Your task to perform on an android device: set an alarm Image 0: 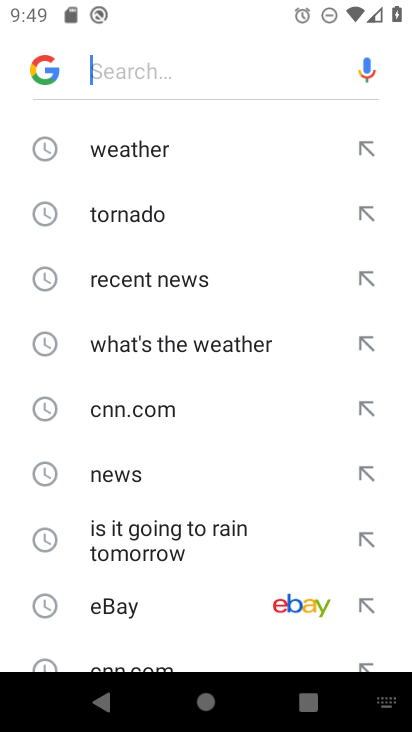
Step 0: press home button
Your task to perform on an android device: set an alarm Image 1: 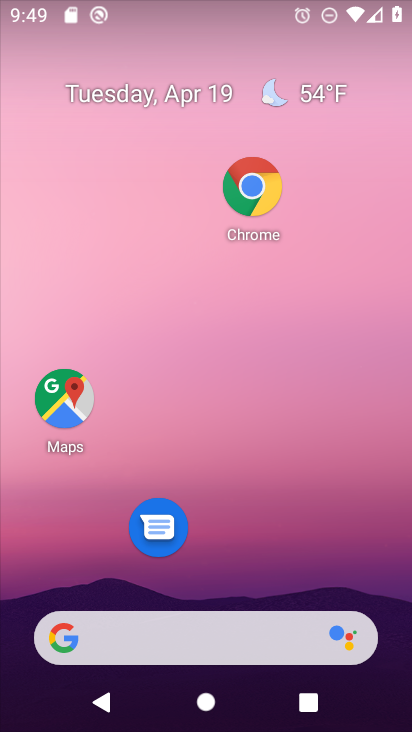
Step 1: drag from (295, 581) to (339, 227)
Your task to perform on an android device: set an alarm Image 2: 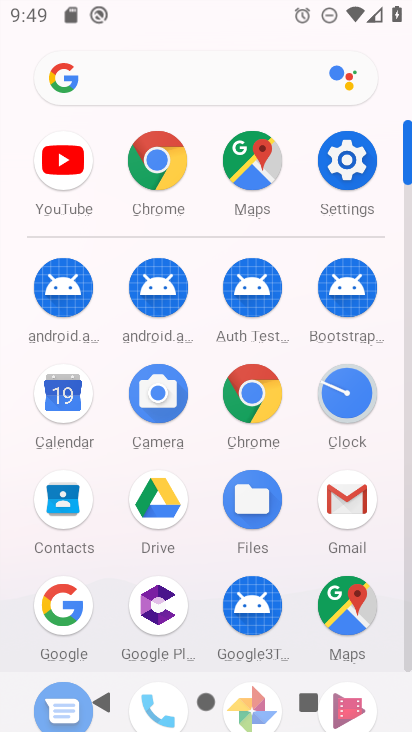
Step 2: click (351, 391)
Your task to perform on an android device: set an alarm Image 3: 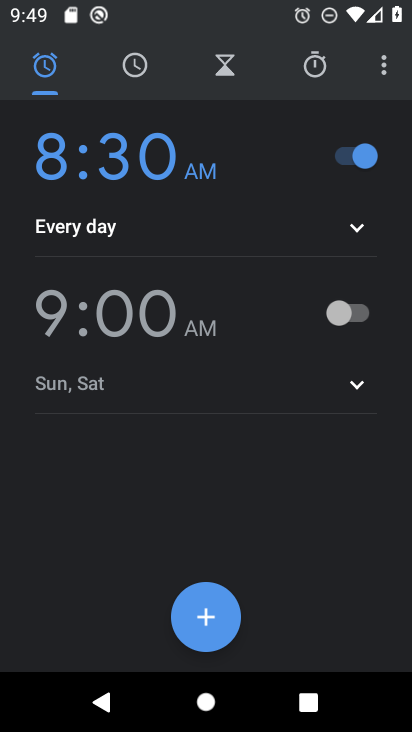
Step 3: click (267, 320)
Your task to perform on an android device: set an alarm Image 4: 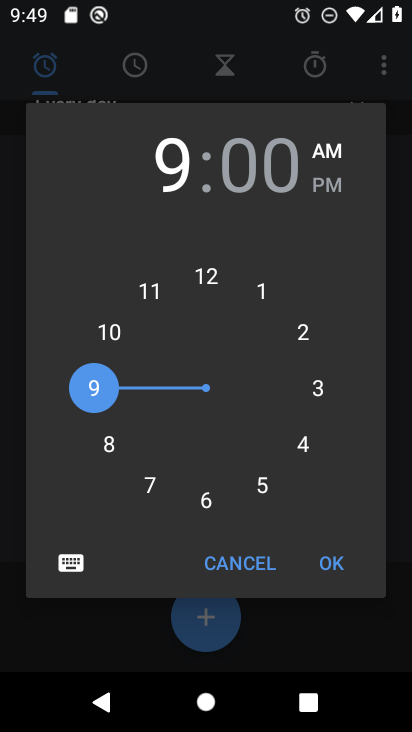
Step 4: click (340, 556)
Your task to perform on an android device: set an alarm Image 5: 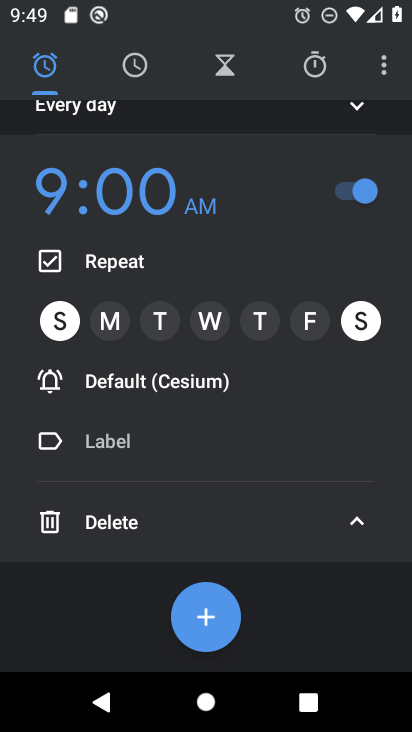
Step 5: click (101, 318)
Your task to perform on an android device: set an alarm Image 6: 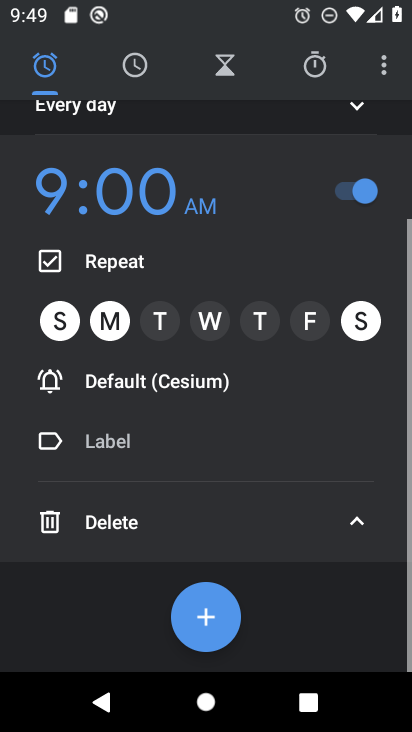
Step 6: click (160, 312)
Your task to perform on an android device: set an alarm Image 7: 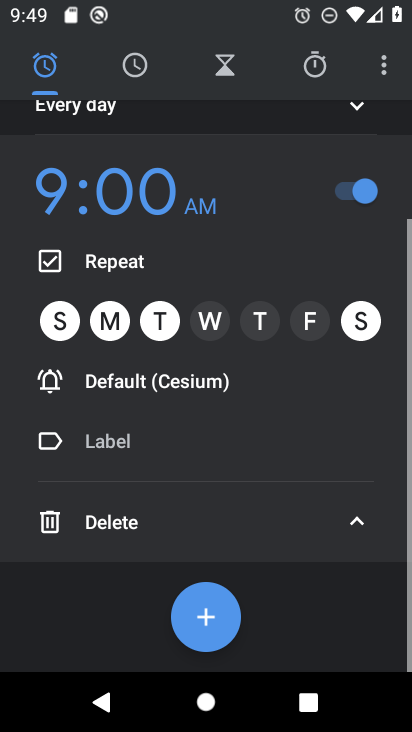
Step 7: click (202, 317)
Your task to perform on an android device: set an alarm Image 8: 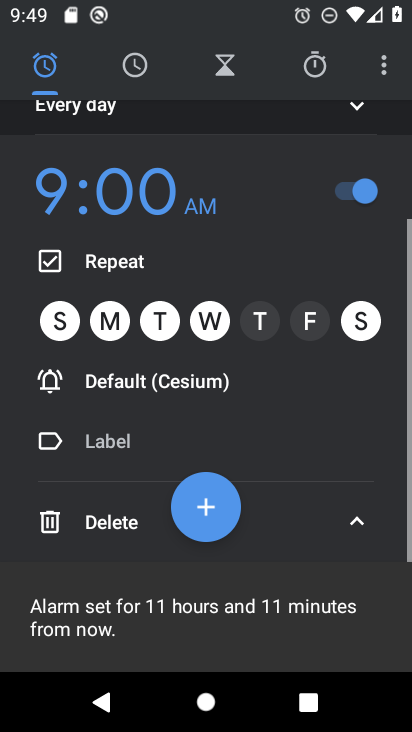
Step 8: click (261, 317)
Your task to perform on an android device: set an alarm Image 9: 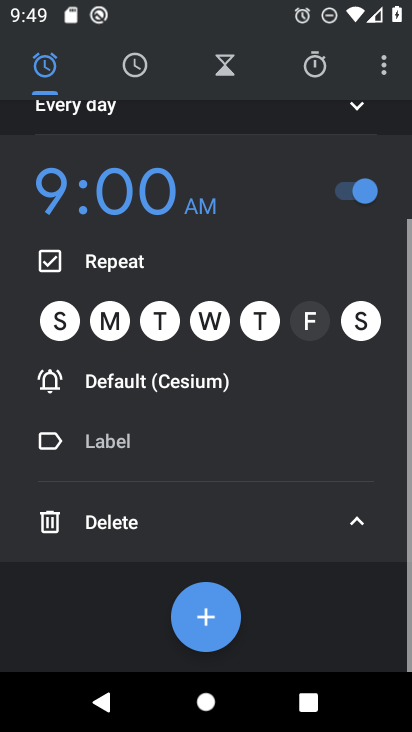
Step 9: click (291, 319)
Your task to perform on an android device: set an alarm Image 10: 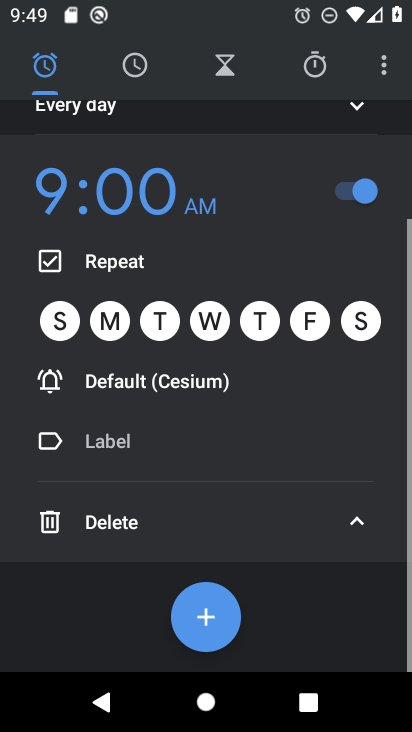
Step 10: click (313, 320)
Your task to perform on an android device: set an alarm Image 11: 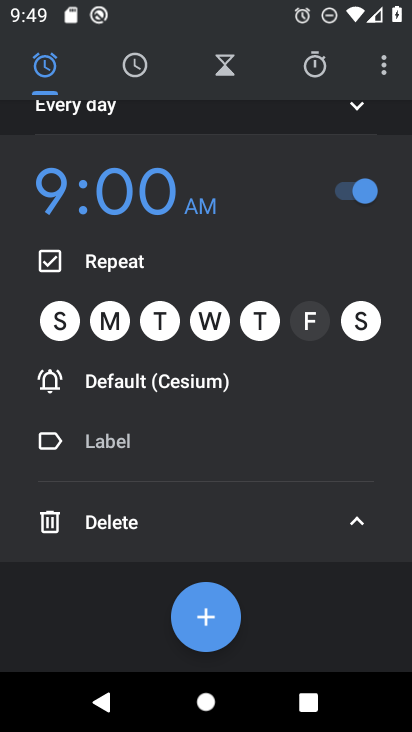
Step 11: click (319, 328)
Your task to perform on an android device: set an alarm Image 12: 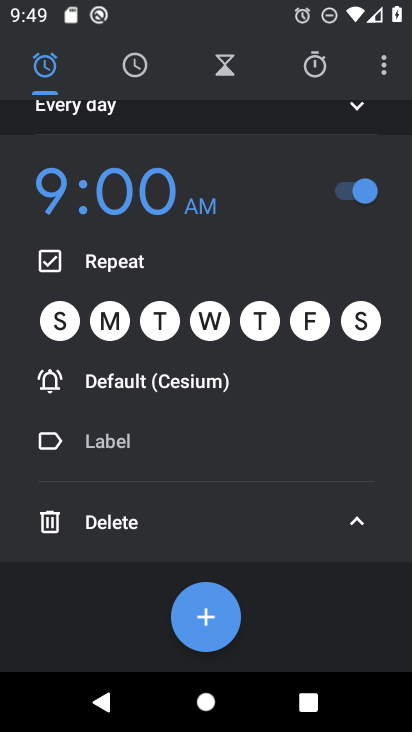
Step 12: click (362, 524)
Your task to perform on an android device: set an alarm Image 13: 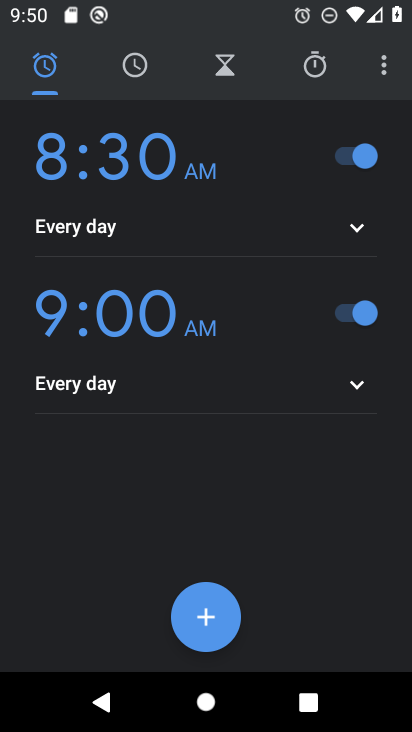
Step 13: task complete